Your task to perform on an android device: See recent photos Image 0: 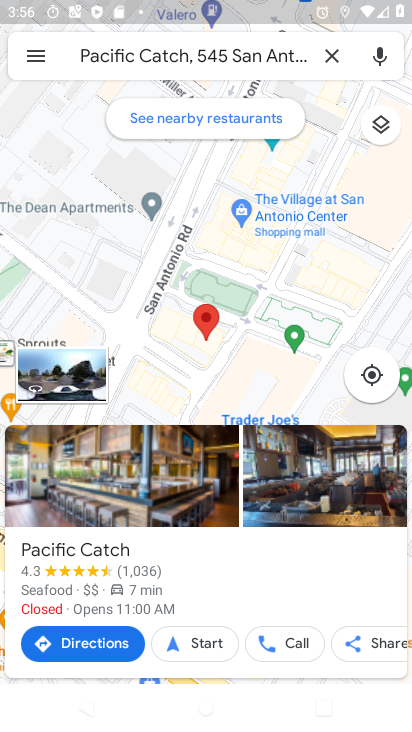
Step 0: press home button
Your task to perform on an android device: See recent photos Image 1: 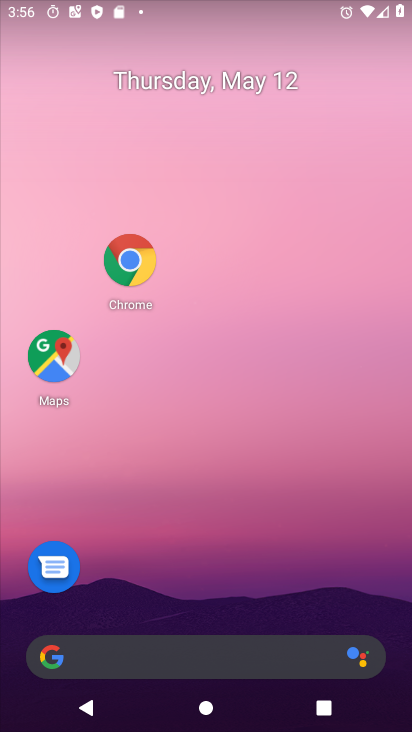
Step 1: drag from (205, 642) to (227, 226)
Your task to perform on an android device: See recent photos Image 2: 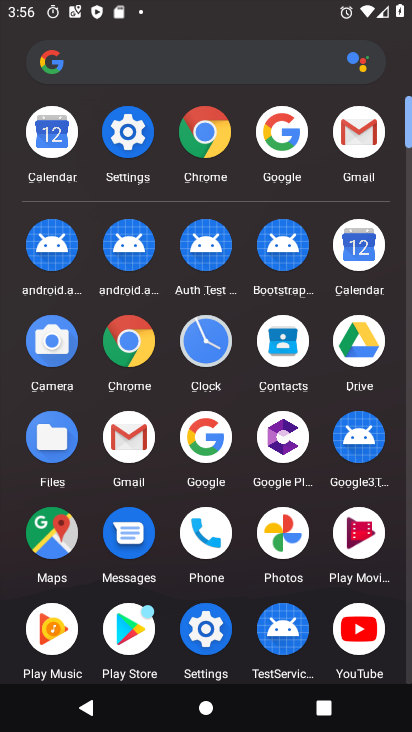
Step 2: click (284, 541)
Your task to perform on an android device: See recent photos Image 3: 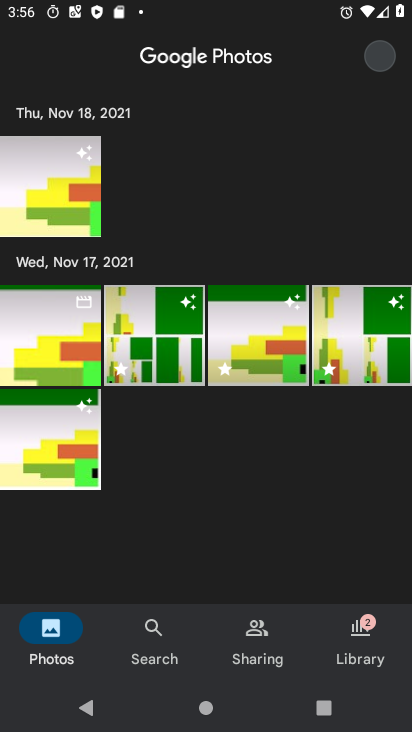
Step 3: click (79, 184)
Your task to perform on an android device: See recent photos Image 4: 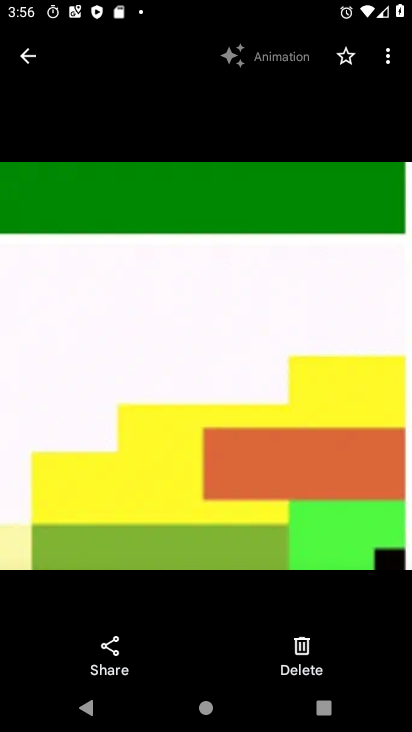
Step 4: task complete